Your task to perform on an android device: Open eBay Image 0: 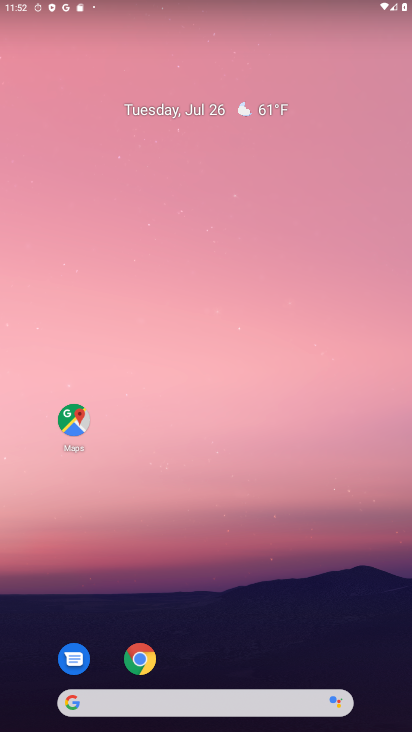
Step 0: click (139, 651)
Your task to perform on an android device: Open eBay Image 1: 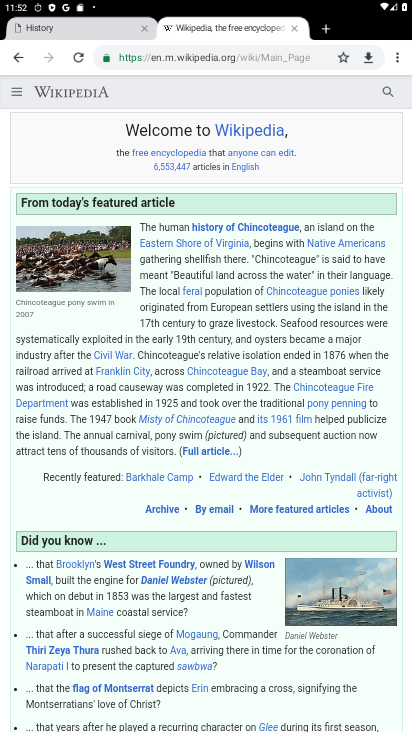
Step 1: click (325, 29)
Your task to perform on an android device: Open eBay Image 2: 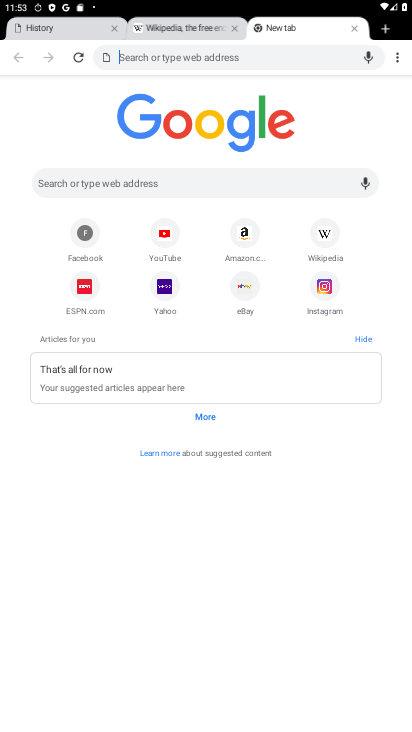
Step 2: click (239, 285)
Your task to perform on an android device: Open eBay Image 3: 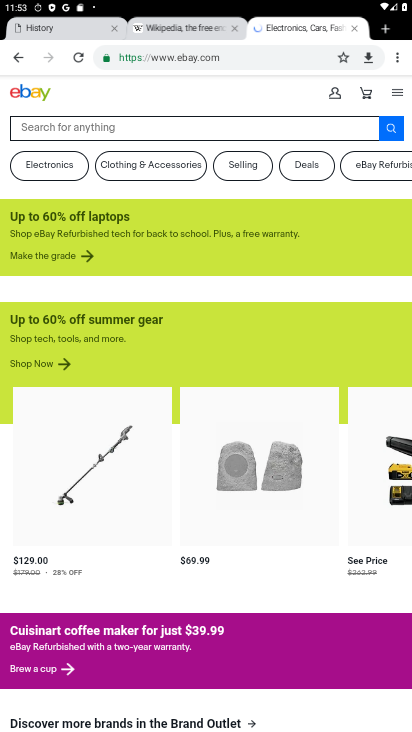
Step 3: task complete